Your task to perform on an android device: Open battery settings Image 0: 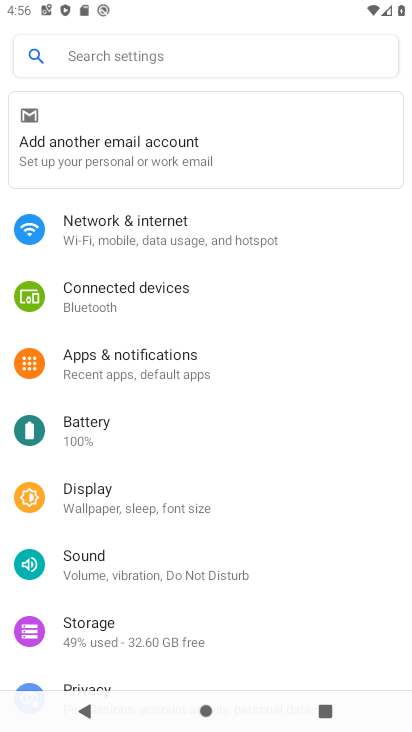
Step 0: drag from (160, 624) to (254, 181)
Your task to perform on an android device: Open battery settings Image 1: 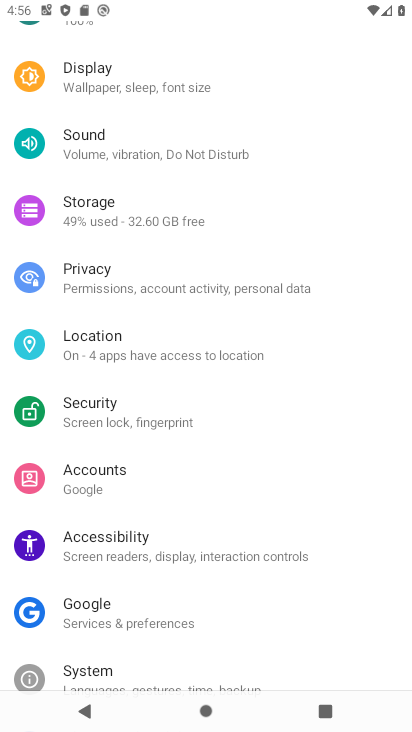
Step 1: drag from (181, 207) to (177, 609)
Your task to perform on an android device: Open battery settings Image 2: 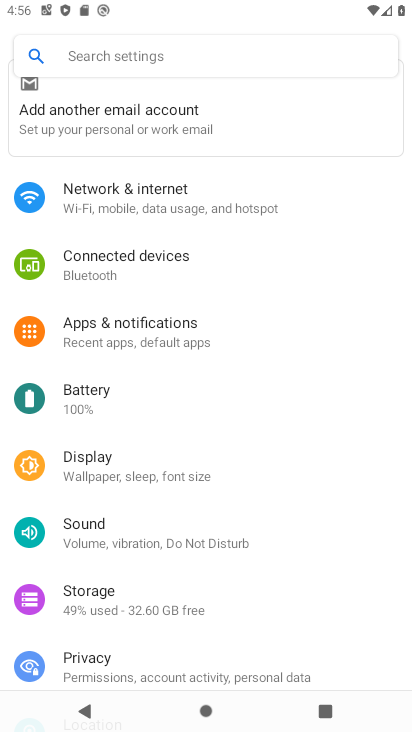
Step 2: click (113, 375)
Your task to perform on an android device: Open battery settings Image 3: 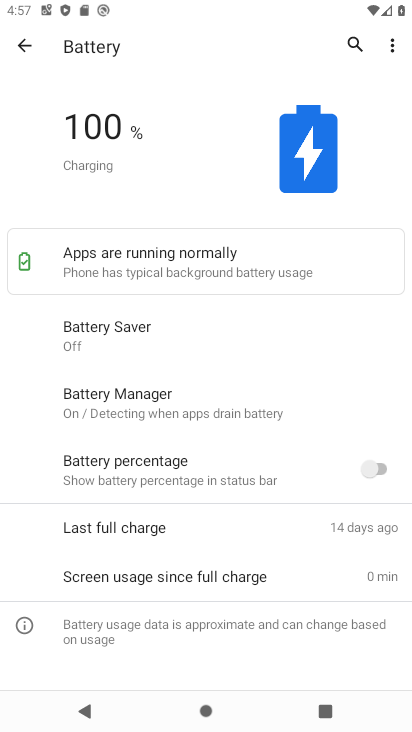
Step 3: task complete